Your task to perform on an android device: Turn on the flashlight Image 0: 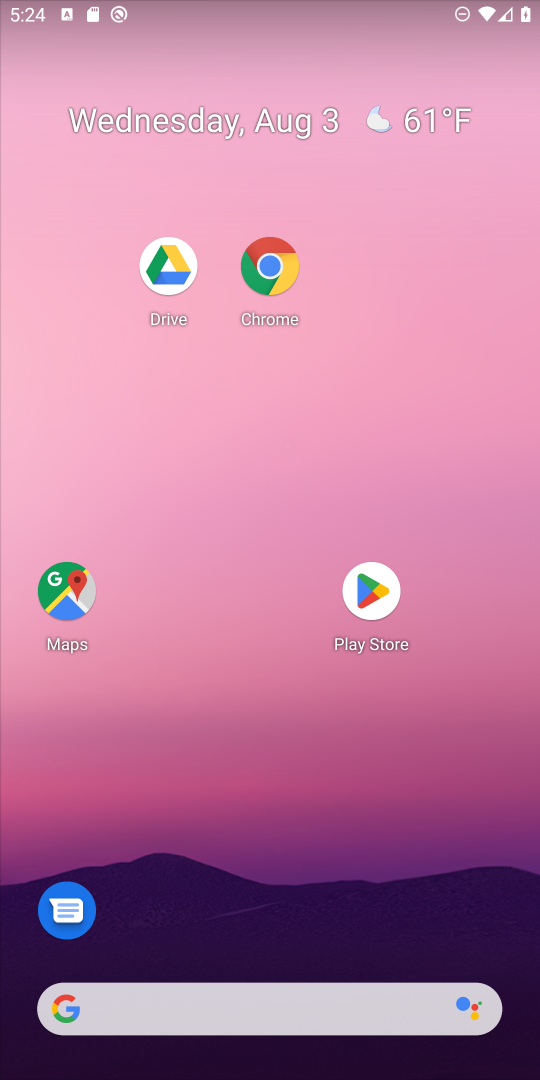
Step 0: drag from (382, 722) to (380, 122)
Your task to perform on an android device: Turn on the flashlight Image 1: 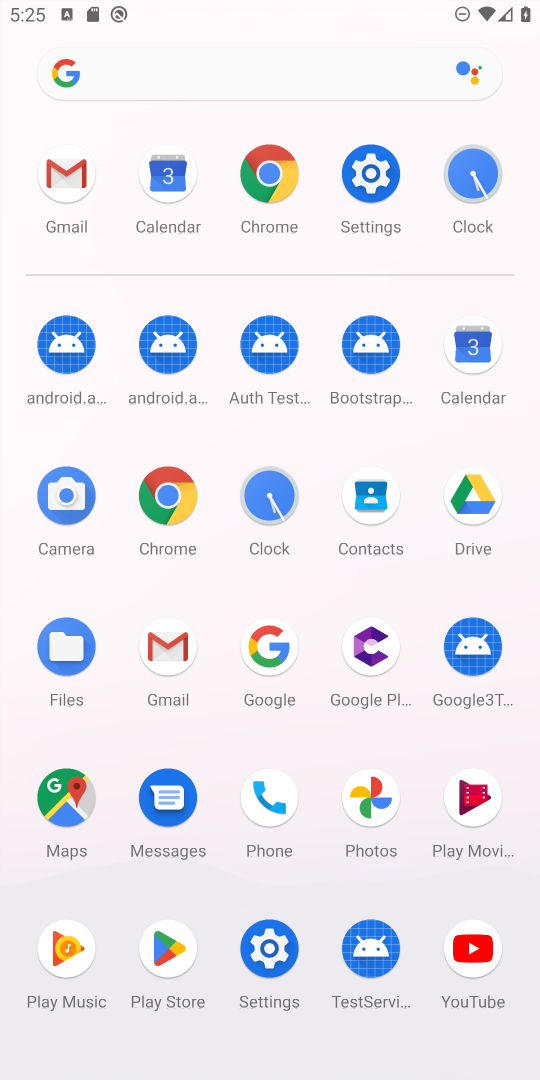
Step 1: task complete